Your task to perform on an android device: create a new album in the google photos Image 0: 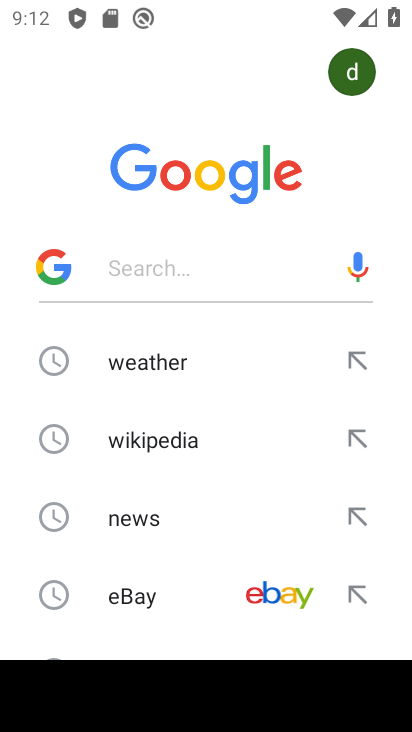
Step 0: press home button
Your task to perform on an android device: create a new album in the google photos Image 1: 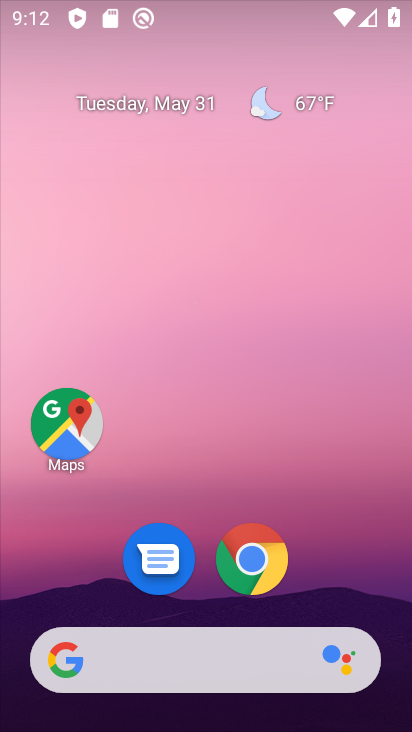
Step 1: drag from (316, 564) to (357, 91)
Your task to perform on an android device: create a new album in the google photos Image 2: 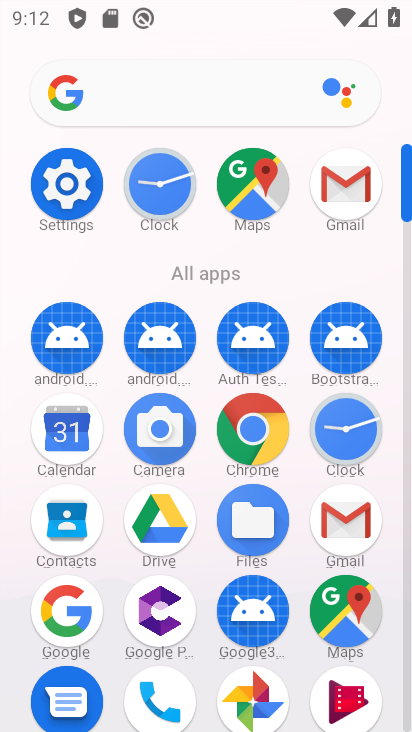
Step 2: click (252, 704)
Your task to perform on an android device: create a new album in the google photos Image 3: 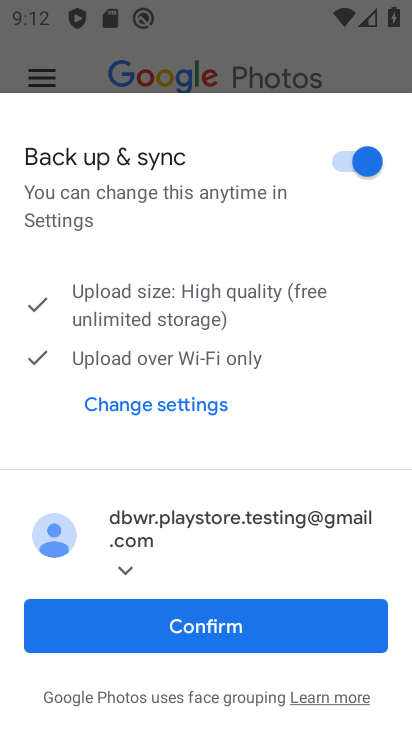
Step 3: click (203, 627)
Your task to perform on an android device: create a new album in the google photos Image 4: 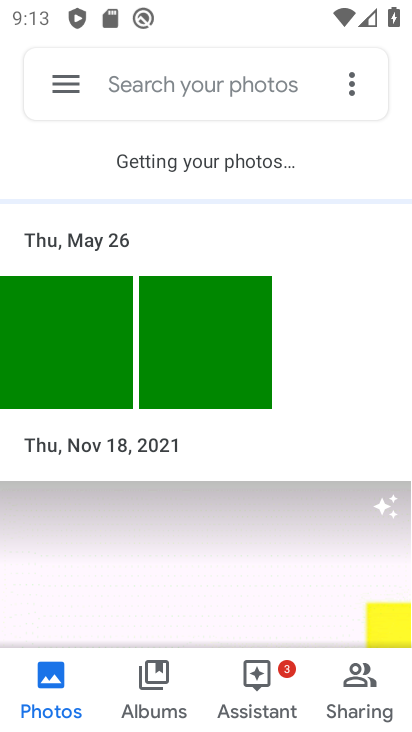
Step 4: task complete